Your task to perform on an android device: open sync settings in chrome Image 0: 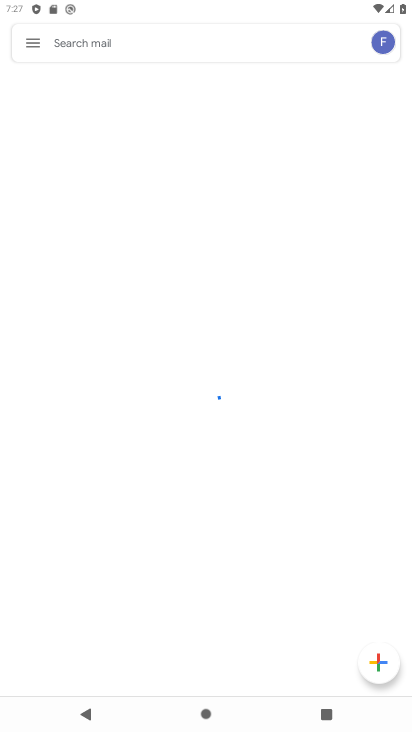
Step 0: press home button
Your task to perform on an android device: open sync settings in chrome Image 1: 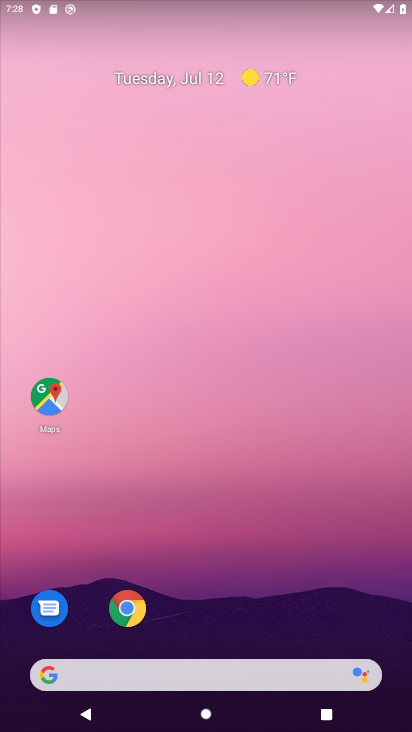
Step 1: click (126, 610)
Your task to perform on an android device: open sync settings in chrome Image 2: 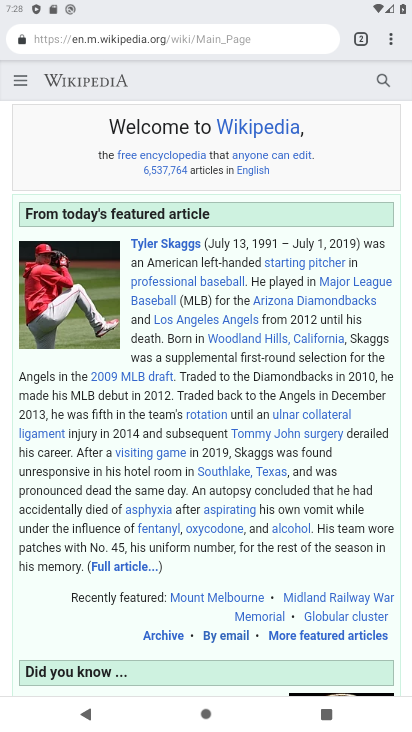
Step 2: click (391, 36)
Your task to perform on an android device: open sync settings in chrome Image 3: 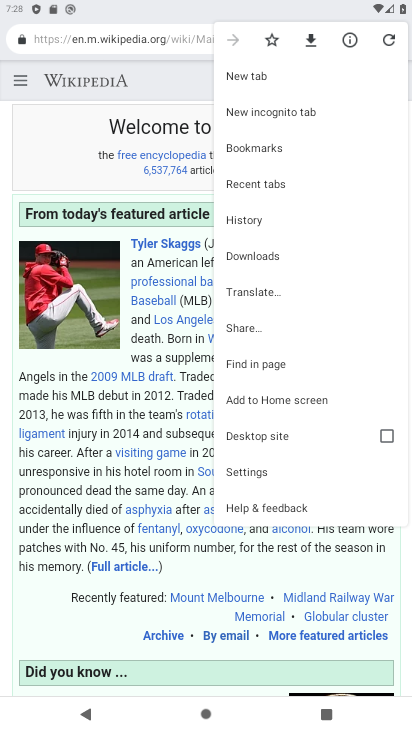
Step 3: click (249, 473)
Your task to perform on an android device: open sync settings in chrome Image 4: 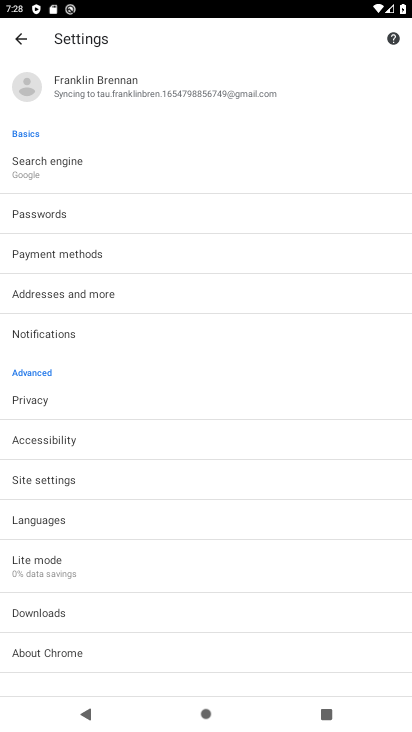
Step 4: click (77, 79)
Your task to perform on an android device: open sync settings in chrome Image 5: 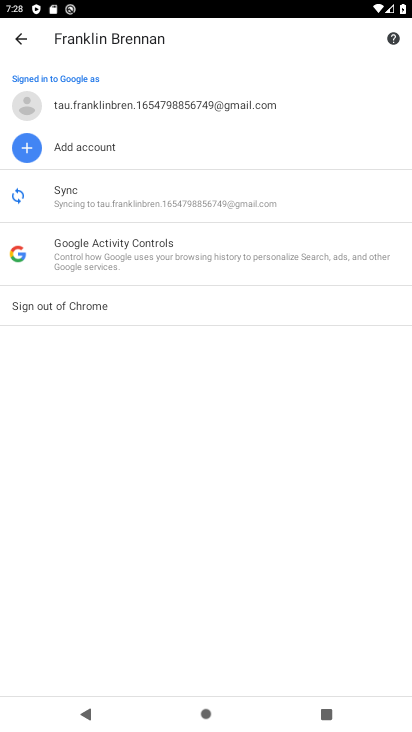
Step 5: click (96, 189)
Your task to perform on an android device: open sync settings in chrome Image 6: 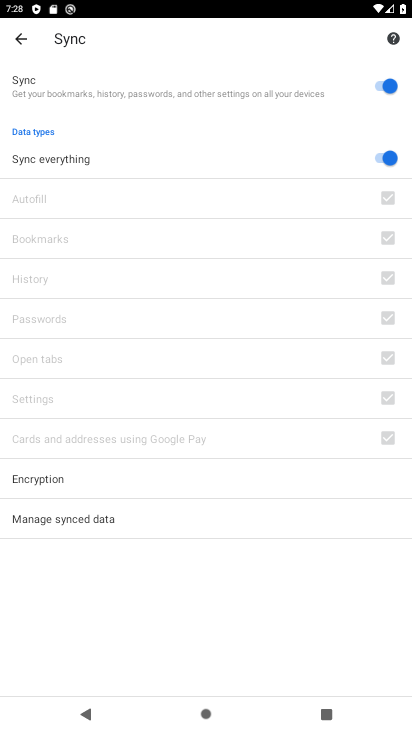
Step 6: task complete